Your task to perform on an android device: Check out the top rated books on Goodreads. Image 0: 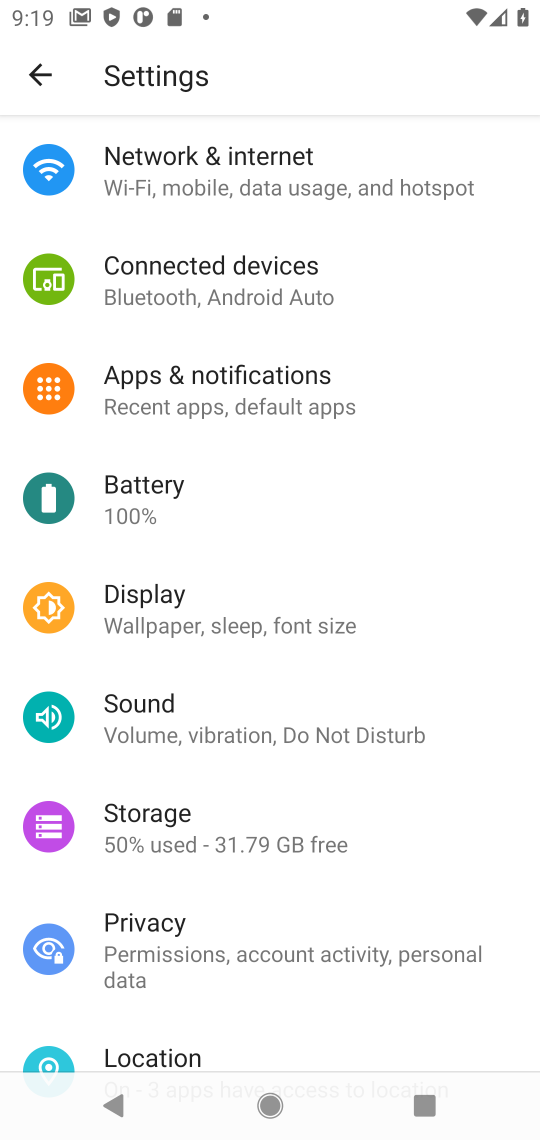
Step 0: press home button
Your task to perform on an android device: Check out the top rated books on Goodreads. Image 1: 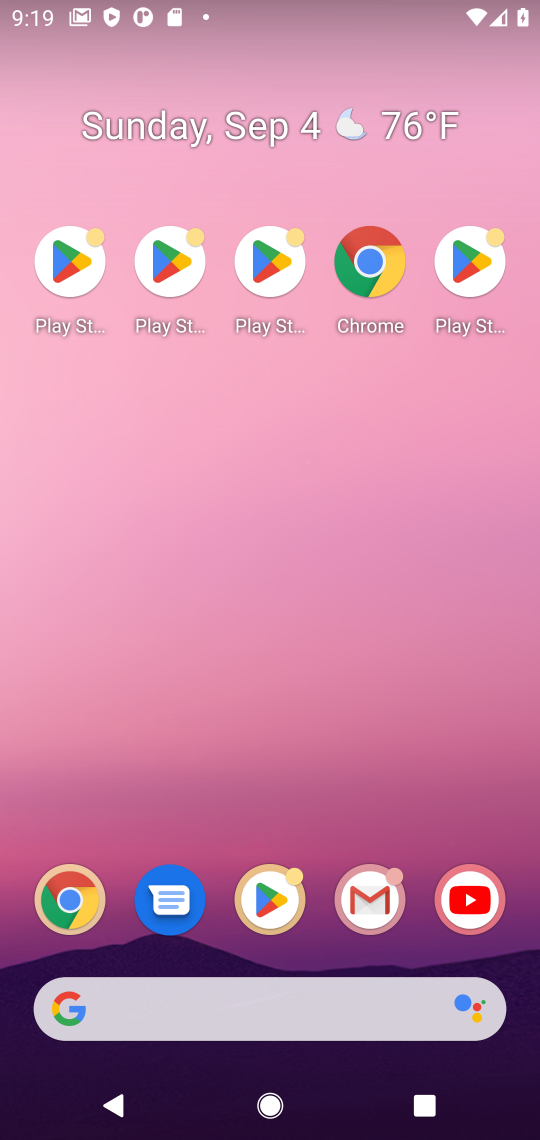
Step 1: click (279, 908)
Your task to perform on an android device: Check out the top rated books on Goodreads. Image 2: 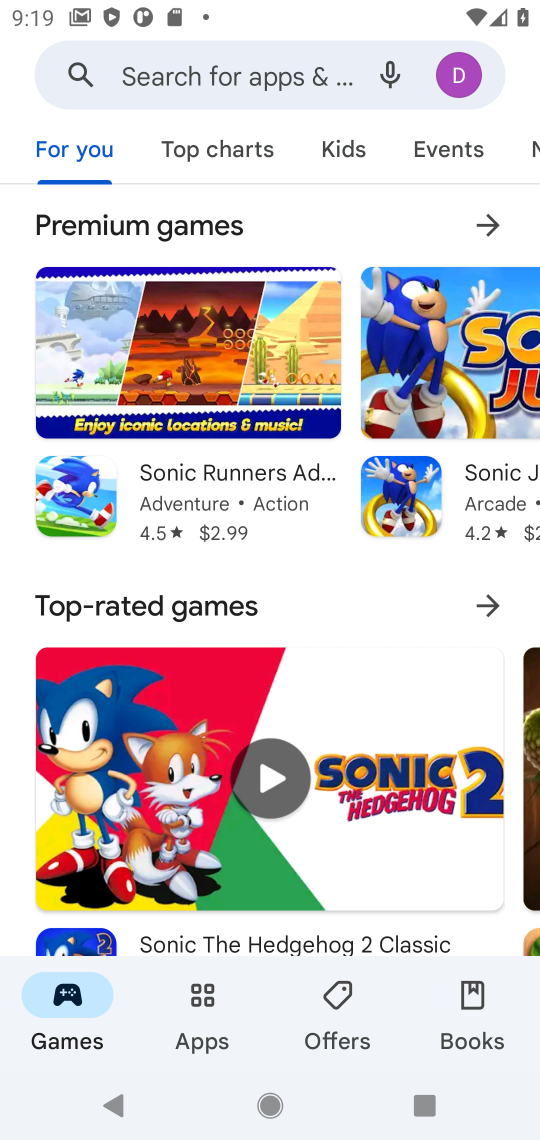
Step 2: click (219, 88)
Your task to perform on an android device: Check out the top rated books on Goodreads. Image 3: 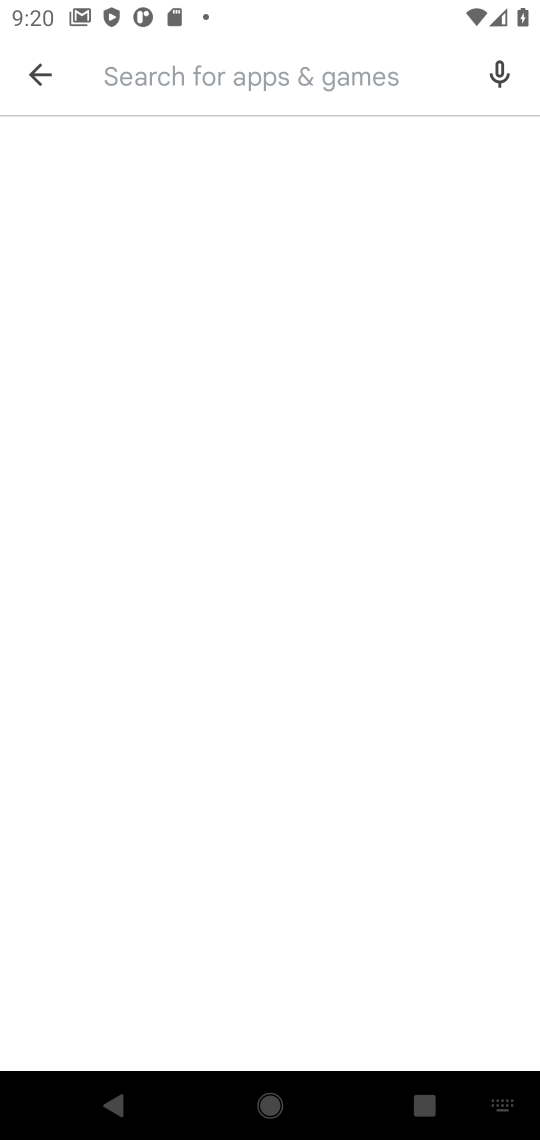
Step 3: press home button
Your task to perform on an android device: Check out the top rated books on Goodreads. Image 4: 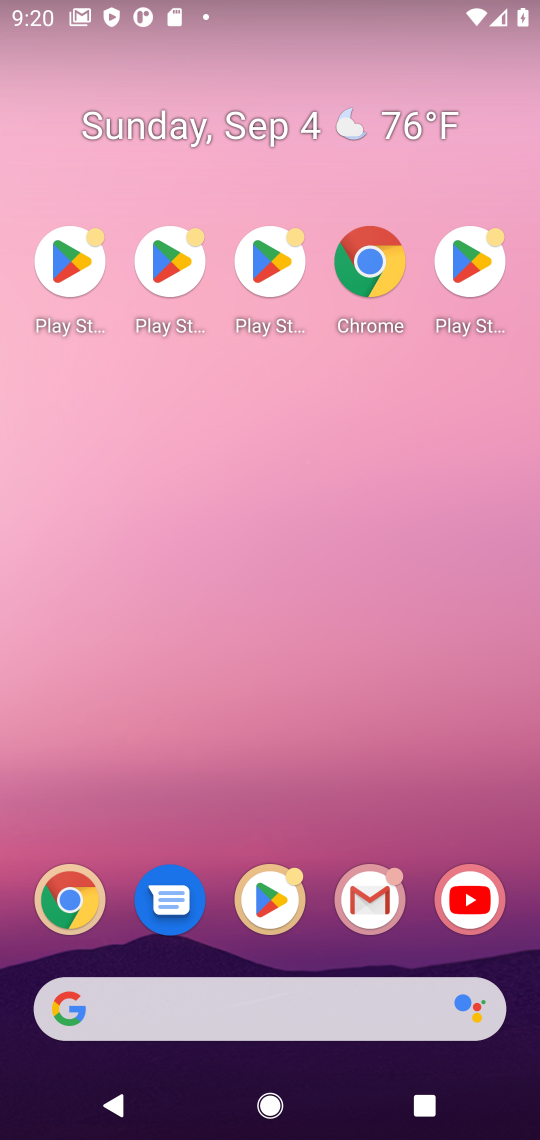
Step 4: drag from (275, 527) to (278, 16)
Your task to perform on an android device: Check out the top rated books on Goodreads. Image 5: 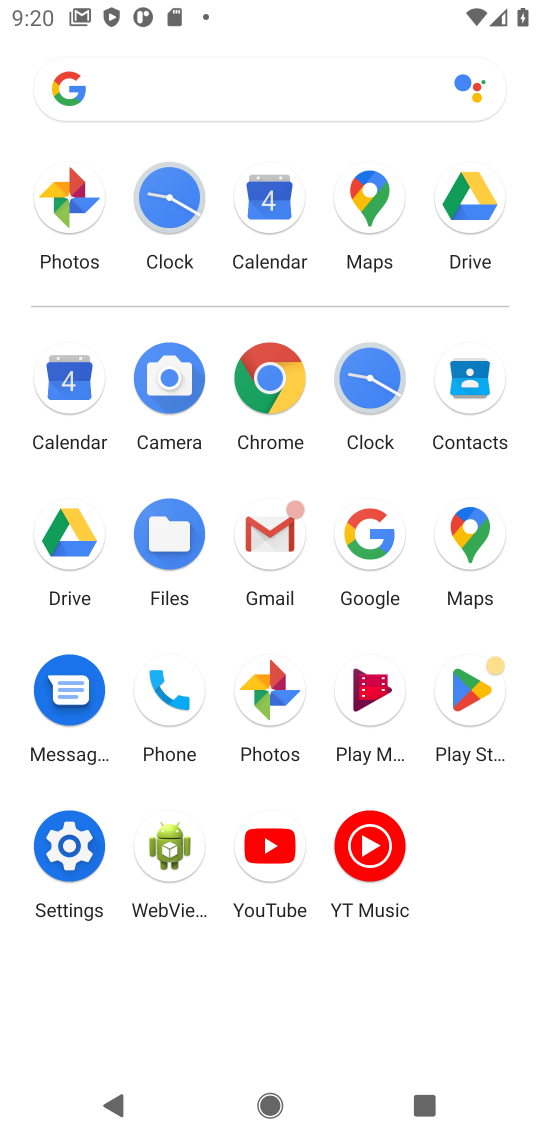
Step 5: click (258, 404)
Your task to perform on an android device: Check out the top rated books on Goodreads. Image 6: 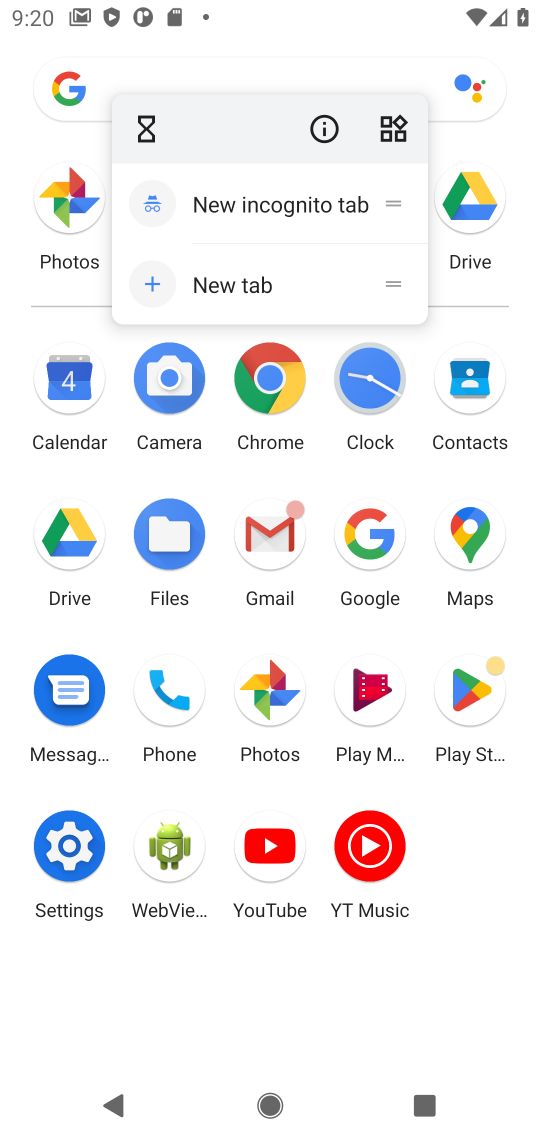
Step 6: click (283, 387)
Your task to perform on an android device: Check out the top rated books on Goodreads. Image 7: 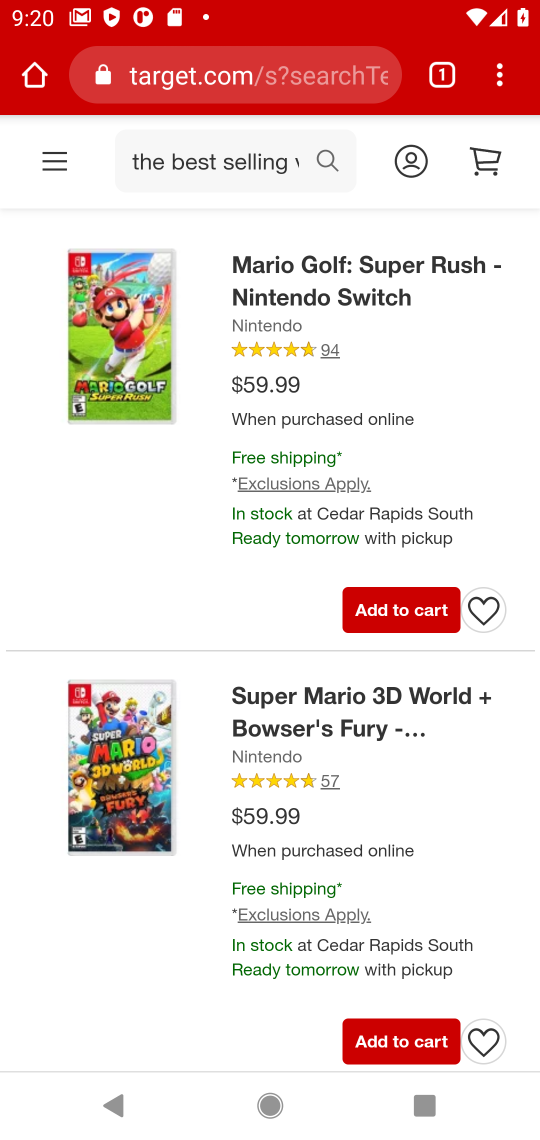
Step 7: click (368, 76)
Your task to perform on an android device: Check out the top rated books on Goodreads. Image 8: 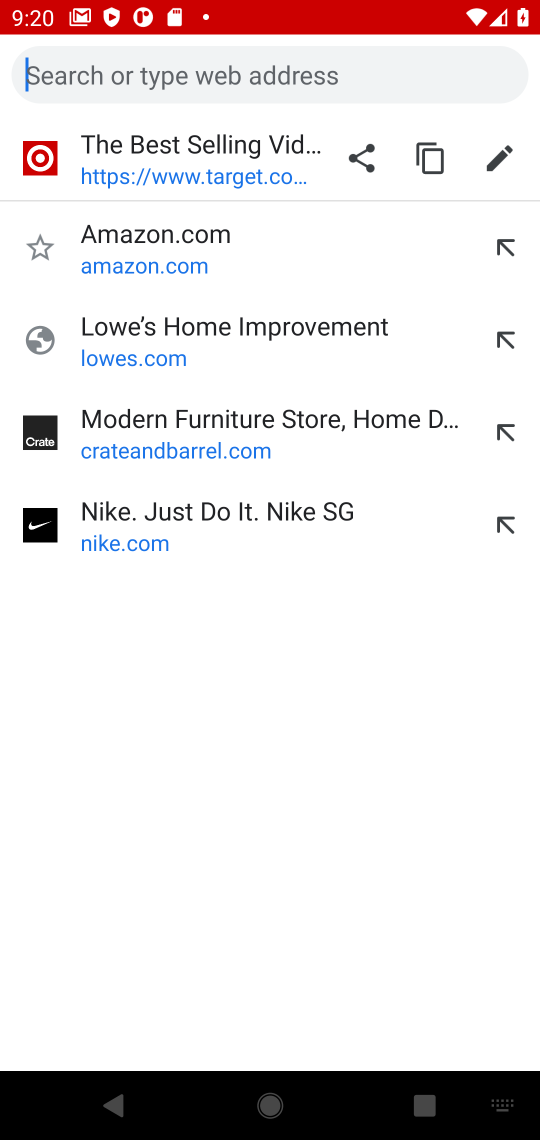
Step 8: type "Goodreads"
Your task to perform on an android device: Check out the top rated books on Goodreads. Image 9: 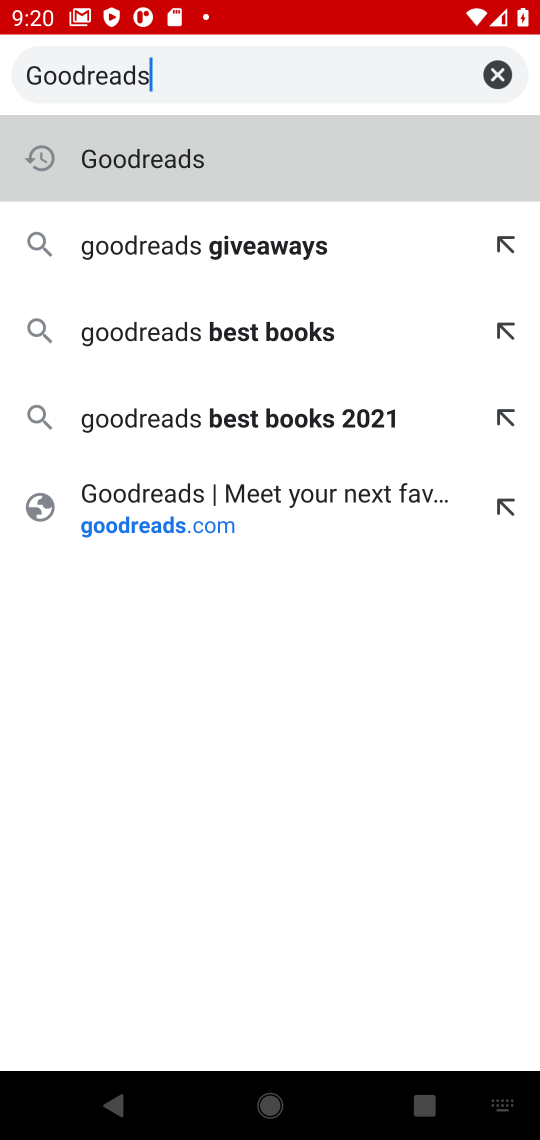
Step 9: click (149, 143)
Your task to perform on an android device: Check out the top rated books on Goodreads. Image 10: 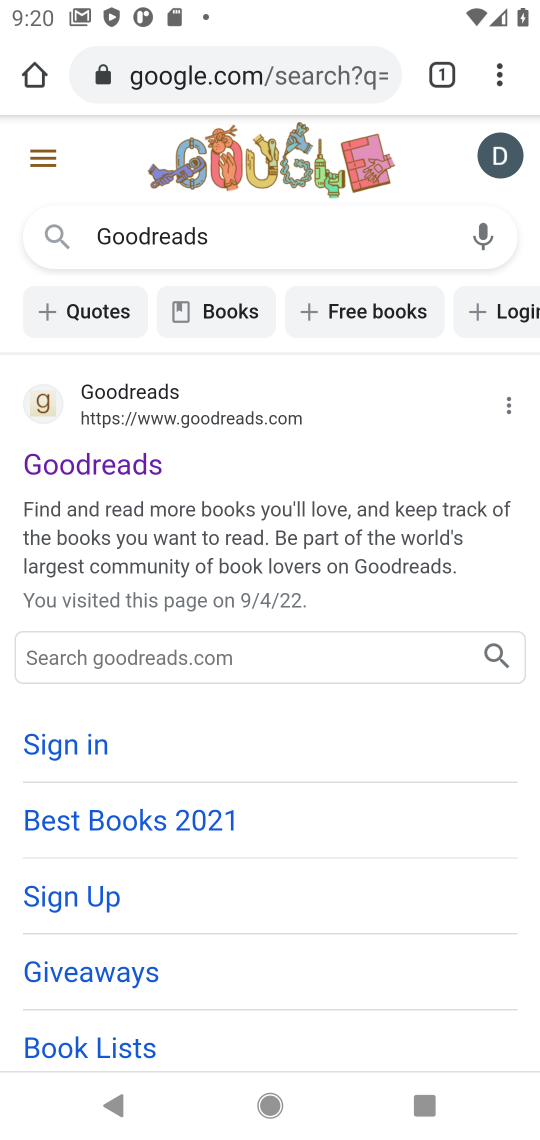
Step 10: click (95, 471)
Your task to perform on an android device: Check out the top rated books on Goodreads. Image 11: 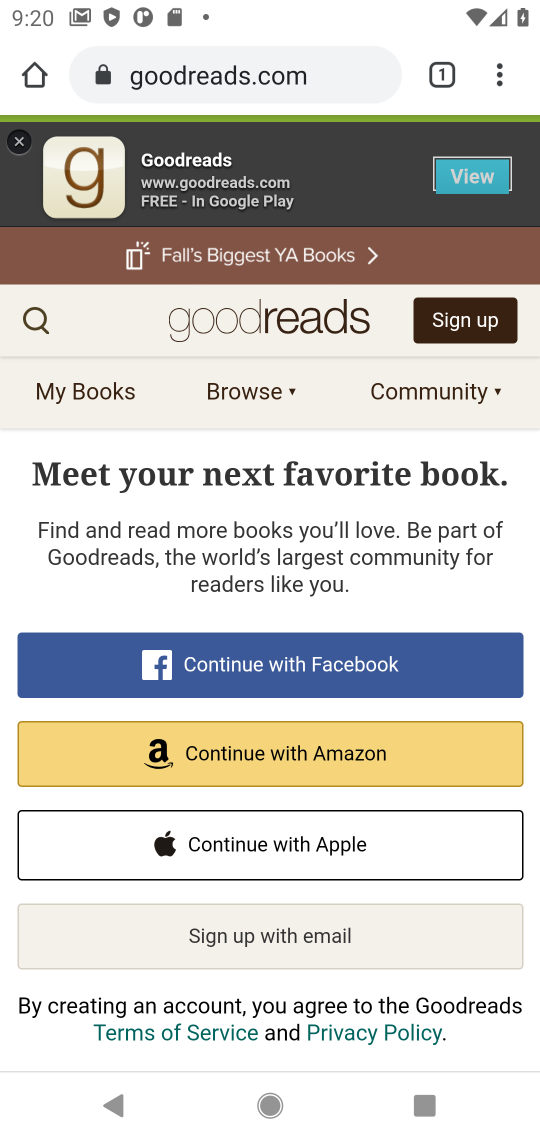
Step 11: click (57, 383)
Your task to perform on an android device: Check out the top rated books on Goodreads. Image 12: 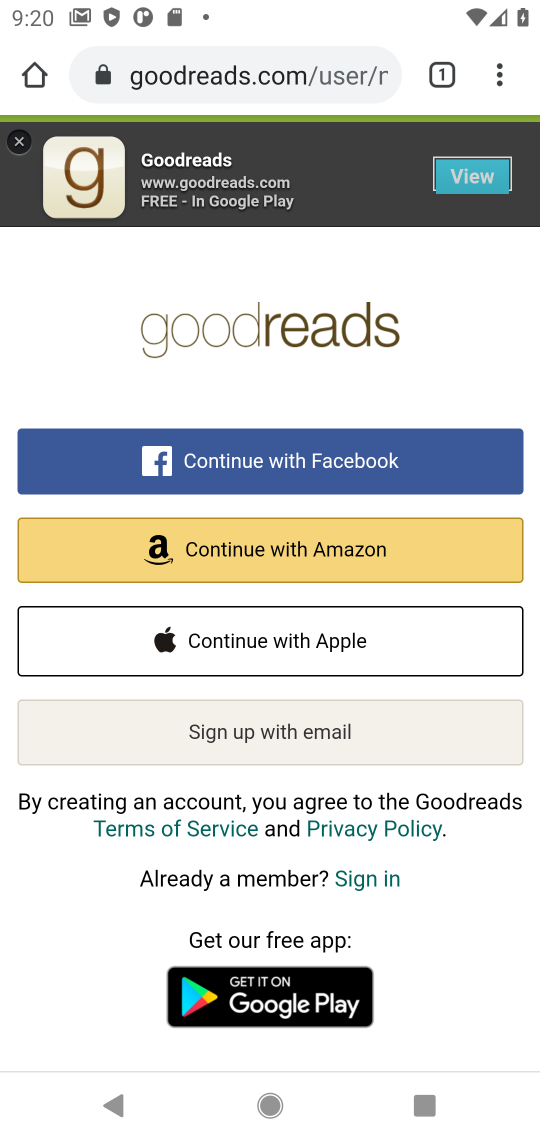
Step 12: click (48, 320)
Your task to perform on an android device: Check out the top rated books on Goodreads. Image 13: 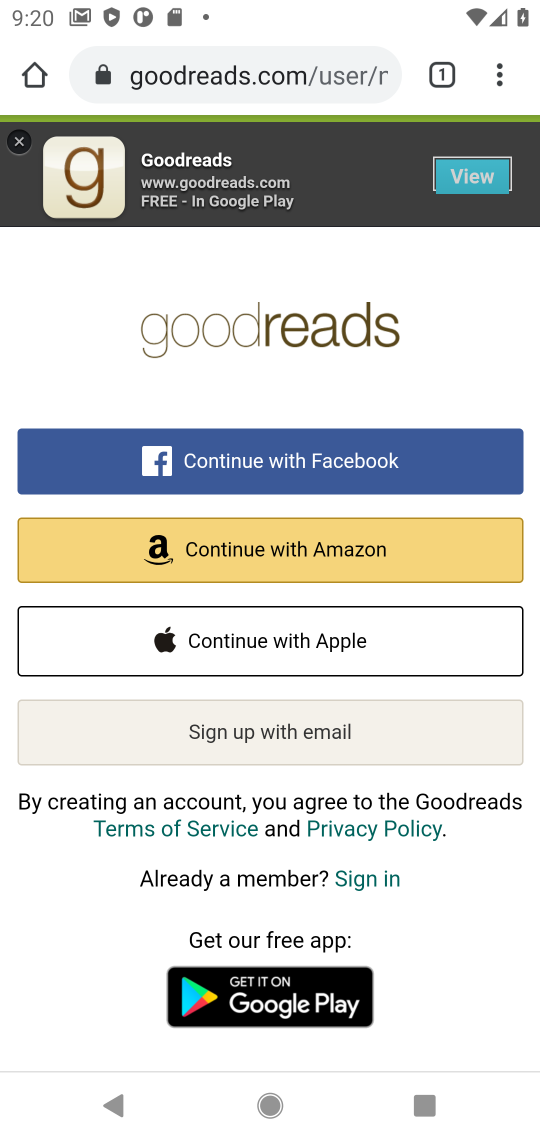
Step 13: click (19, 147)
Your task to perform on an android device: Check out the top rated books on Goodreads. Image 14: 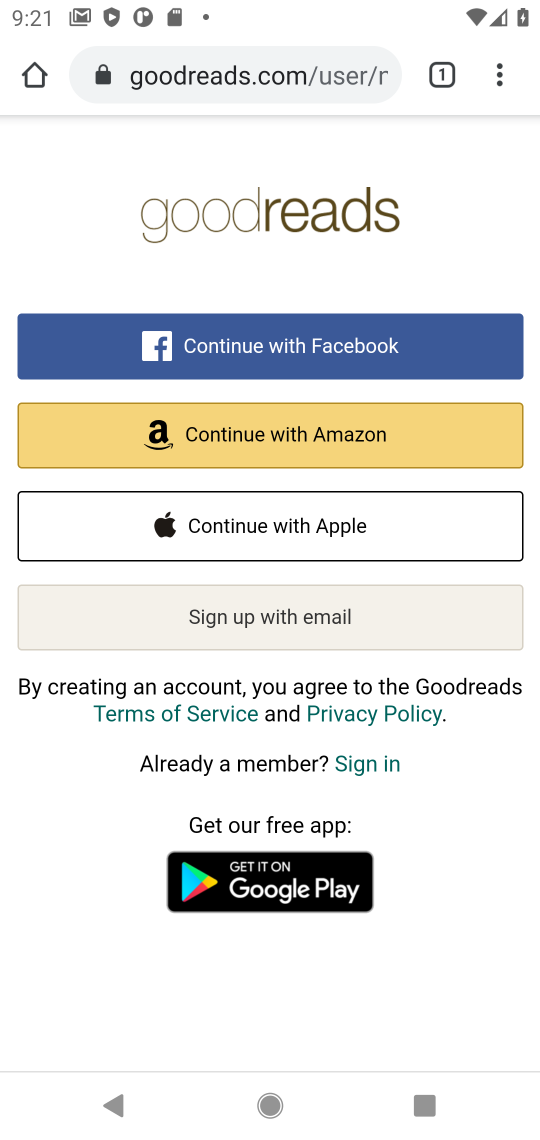
Step 14: press back button
Your task to perform on an android device: Check out the top rated books on Goodreads. Image 15: 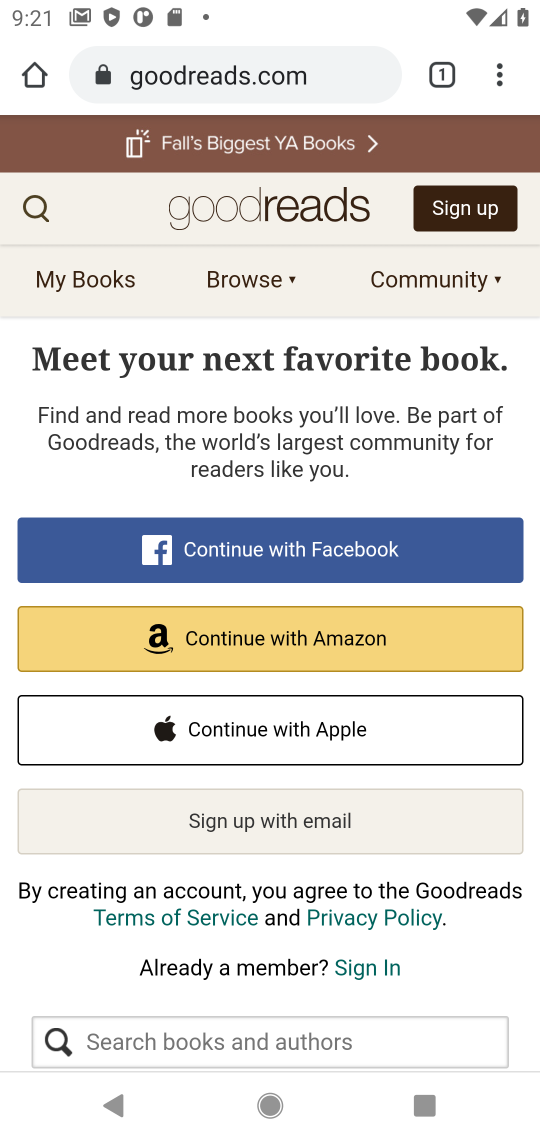
Step 15: click (27, 201)
Your task to perform on an android device: Check out the top rated books on Goodreads. Image 16: 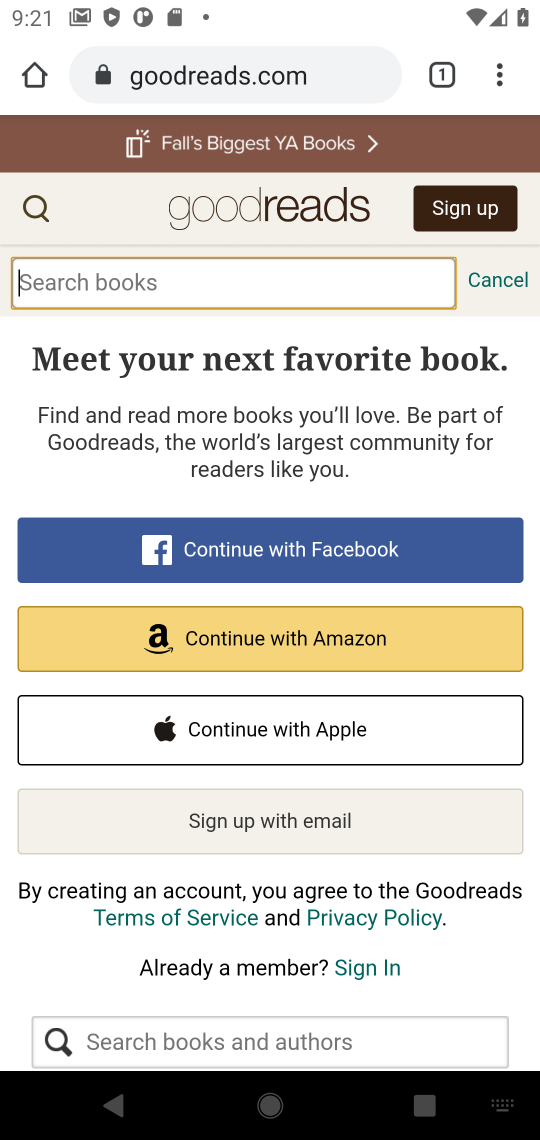
Step 16: type "the top rated books"
Your task to perform on an android device: Check out the top rated books on Goodreads. Image 17: 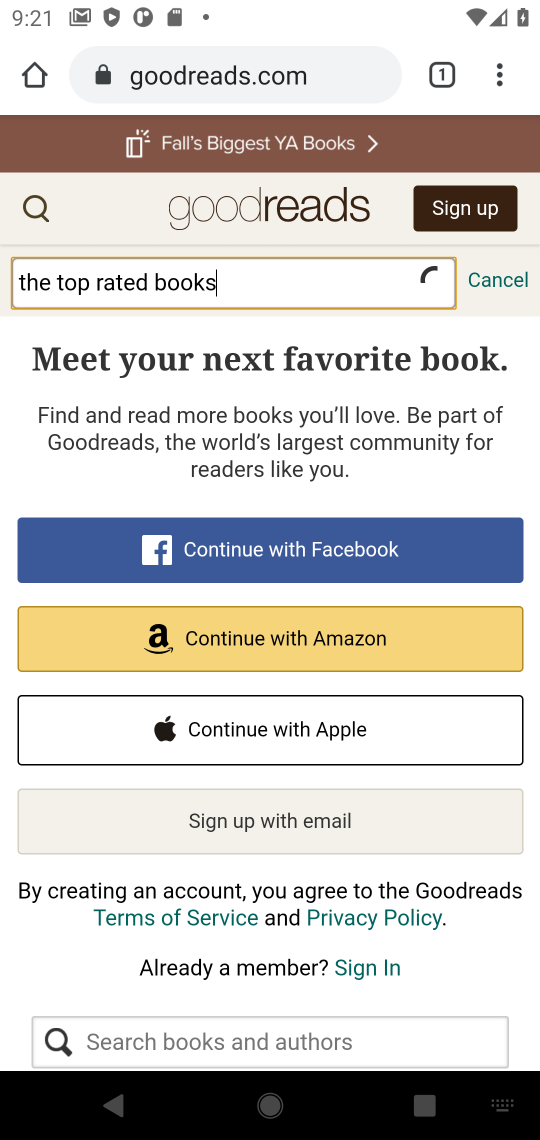
Step 17: type ""
Your task to perform on an android device: Check out the top rated books on Goodreads. Image 18: 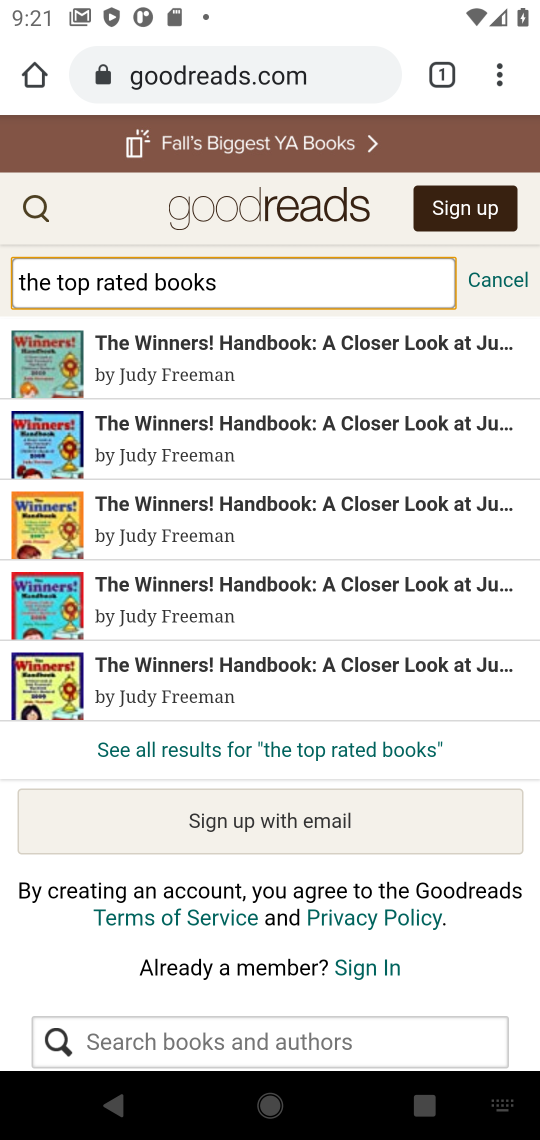
Step 18: click (212, 764)
Your task to perform on an android device: Check out the top rated books on Goodreads. Image 19: 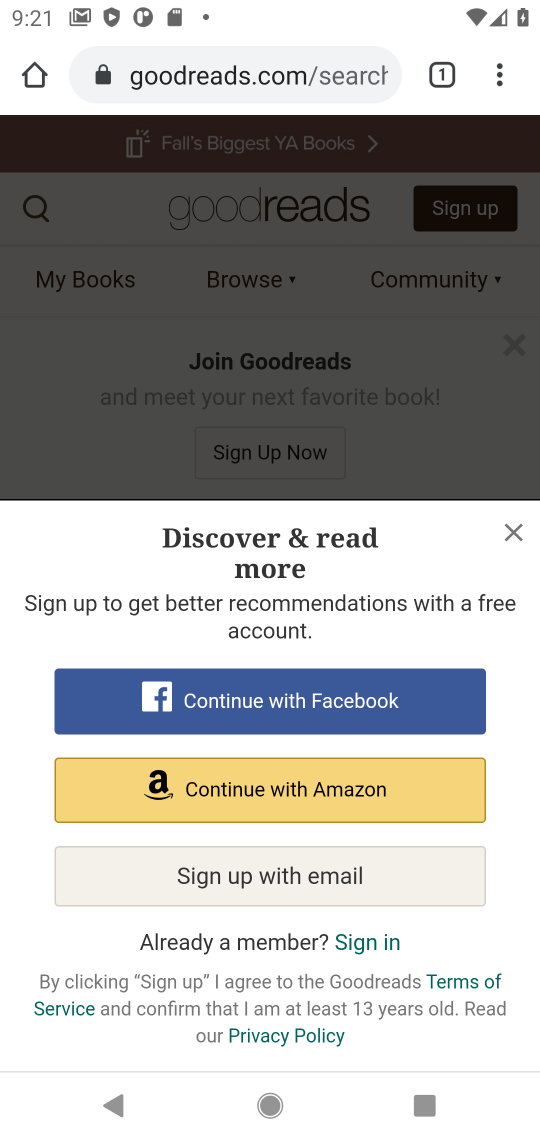
Step 19: drag from (211, 763) to (211, 243)
Your task to perform on an android device: Check out the top rated books on Goodreads. Image 20: 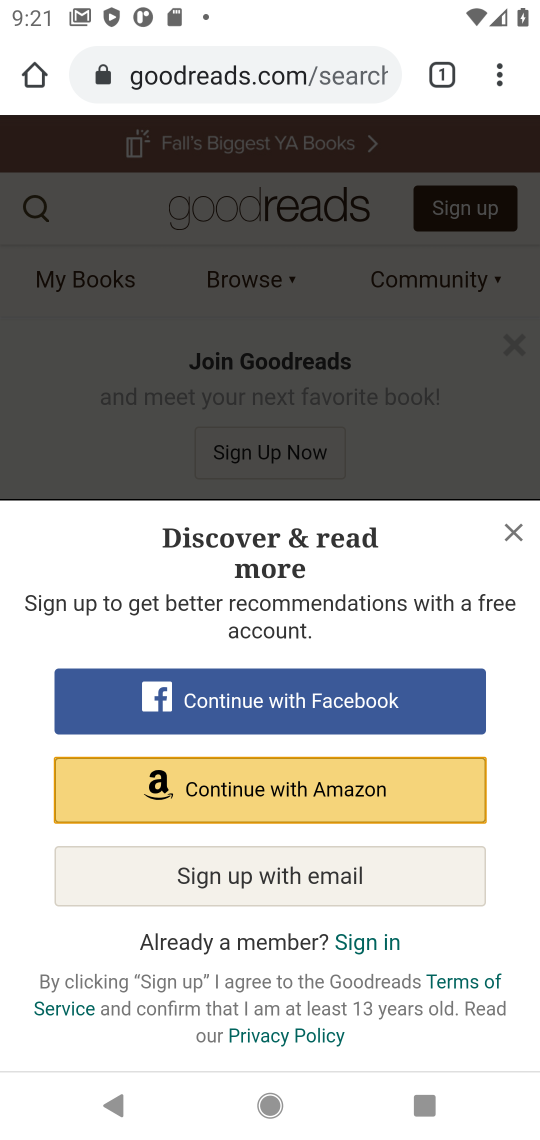
Step 20: click (506, 525)
Your task to perform on an android device: Check out the top rated books on Goodreads. Image 21: 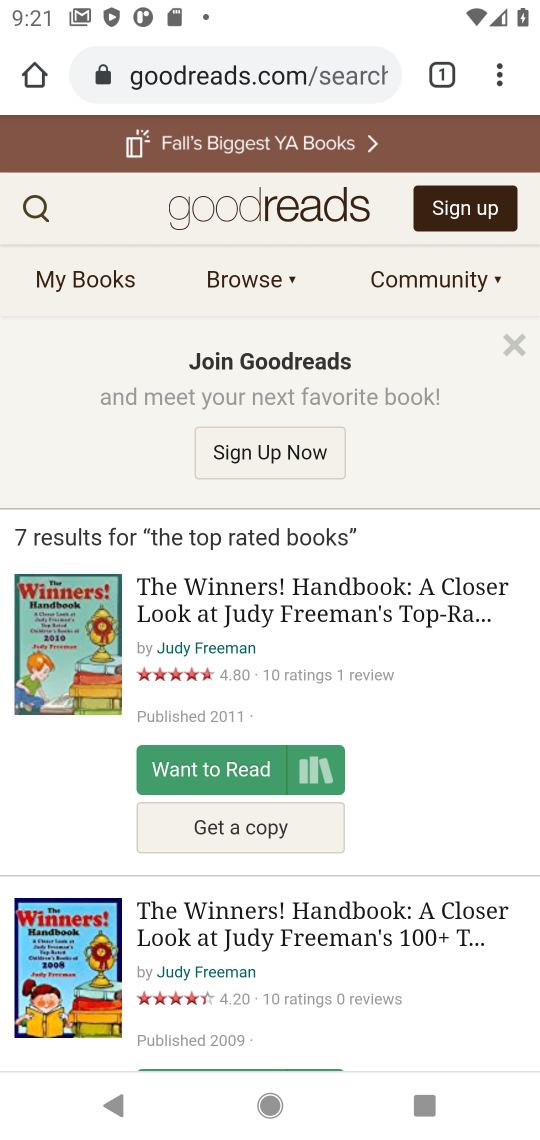
Step 21: task complete